Your task to perform on an android device: turn off location Image 0: 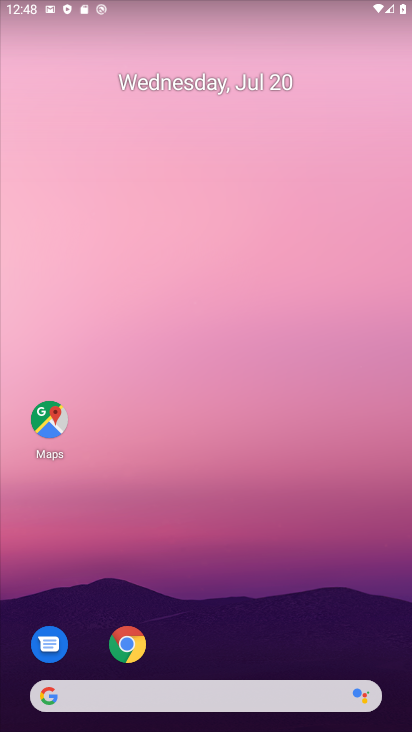
Step 0: drag from (229, 640) to (172, 161)
Your task to perform on an android device: turn off location Image 1: 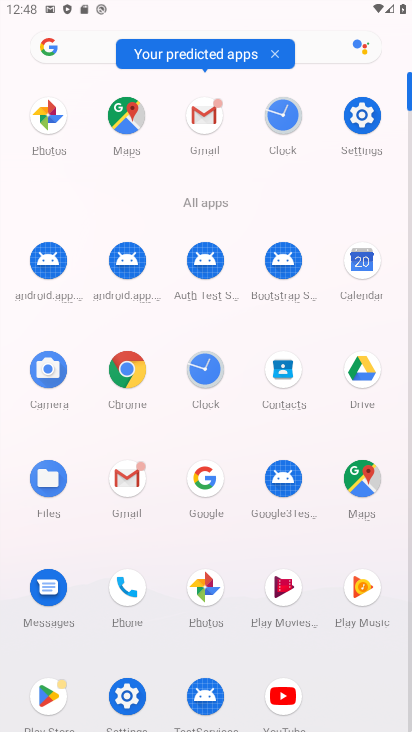
Step 1: click (124, 699)
Your task to perform on an android device: turn off location Image 2: 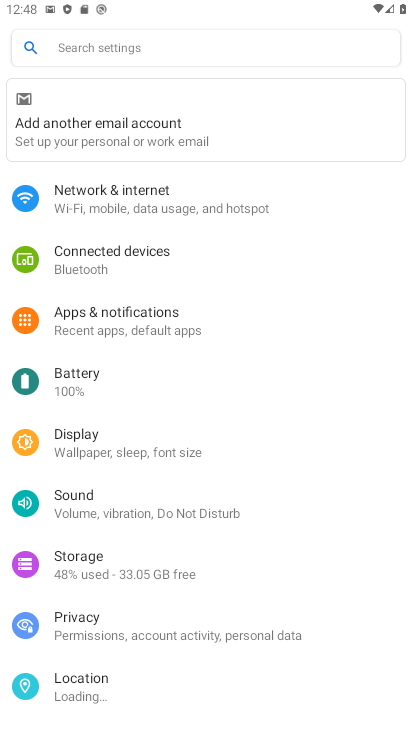
Step 2: click (81, 699)
Your task to perform on an android device: turn off location Image 3: 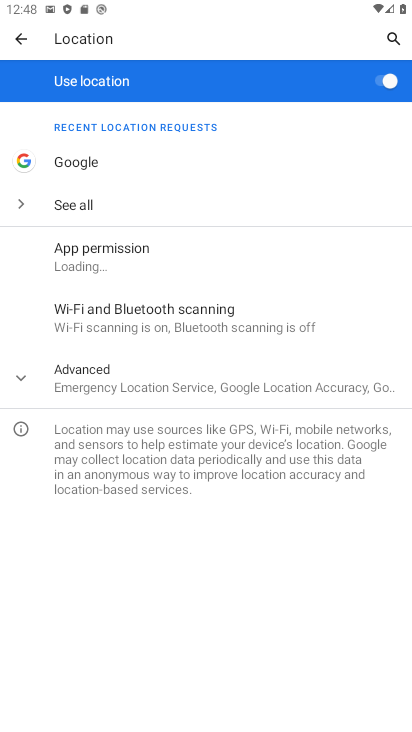
Step 3: click (381, 83)
Your task to perform on an android device: turn off location Image 4: 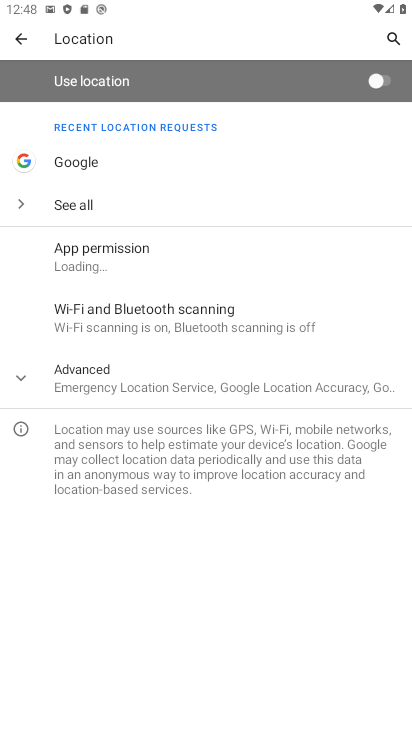
Step 4: task complete